Your task to perform on an android device: Go to network settings Image 0: 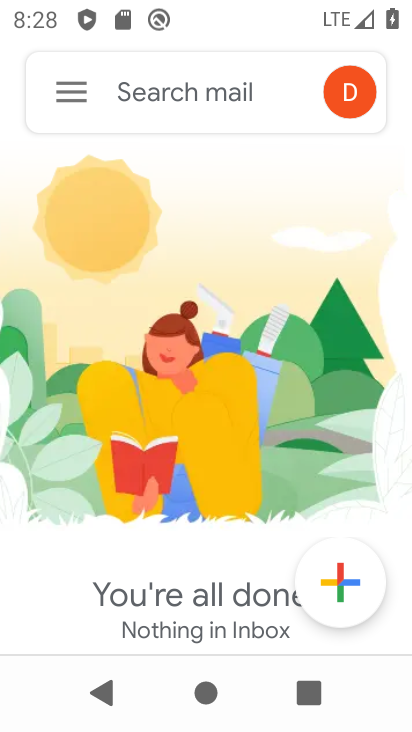
Step 0: drag from (200, 523) to (180, 165)
Your task to perform on an android device: Go to network settings Image 1: 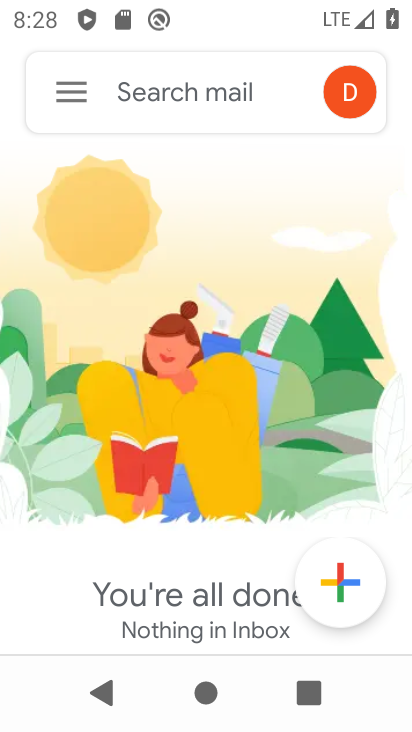
Step 1: drag from (242, 464) to (154, 125)
Your task to perform on an android device: Go to network settings Image 2: 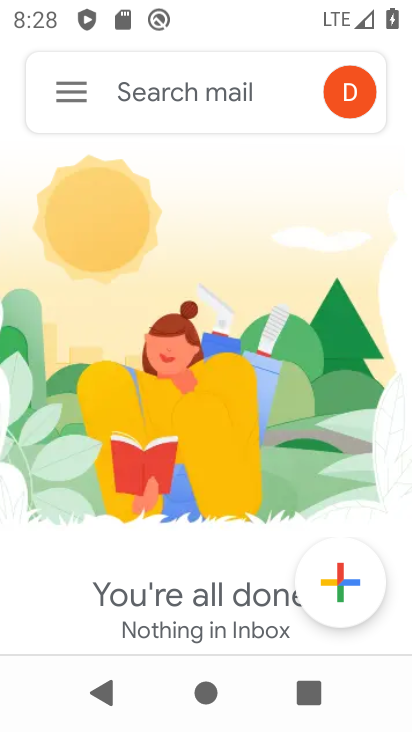
Step 2: drag from (181, 512) to (216, 272)
Your task to perform on an android device: Go to network settings Image 3: 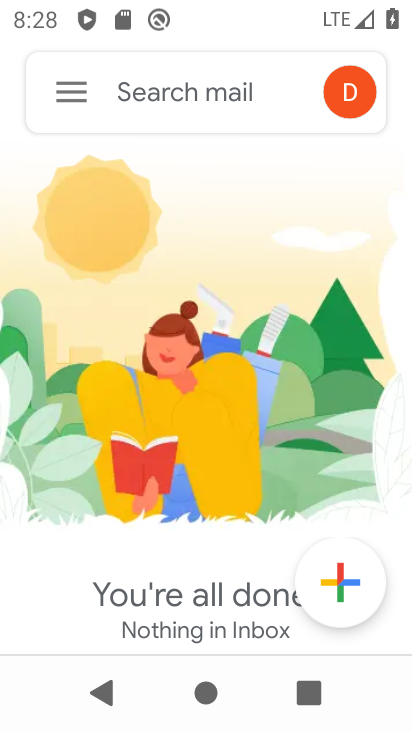
Step 3: click (43, 78)
Your task to perform on an android device: Go to network settings Image 4: 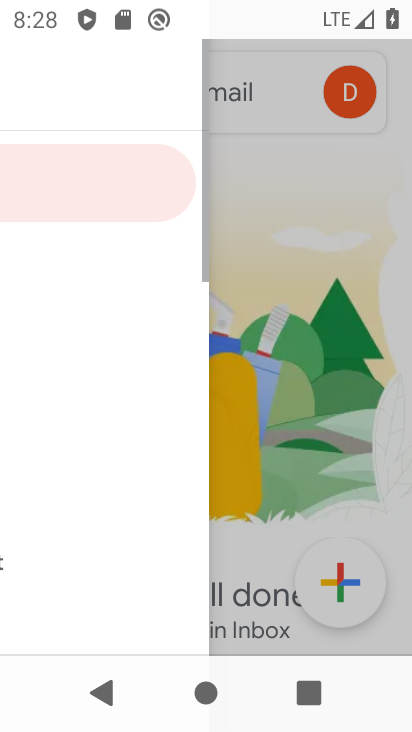
Step 4: click (73, 85)
Your task to perform on an android device: Go to network settings Image 5: 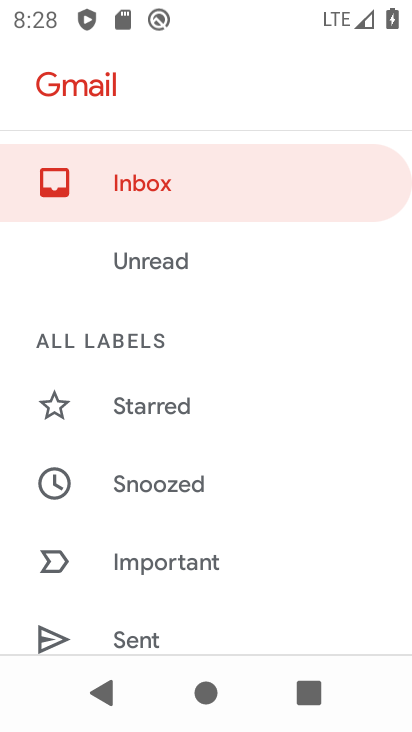
Step 5: click (49, 78)
Your task to perform on an android device: Go to network settings Image 6: 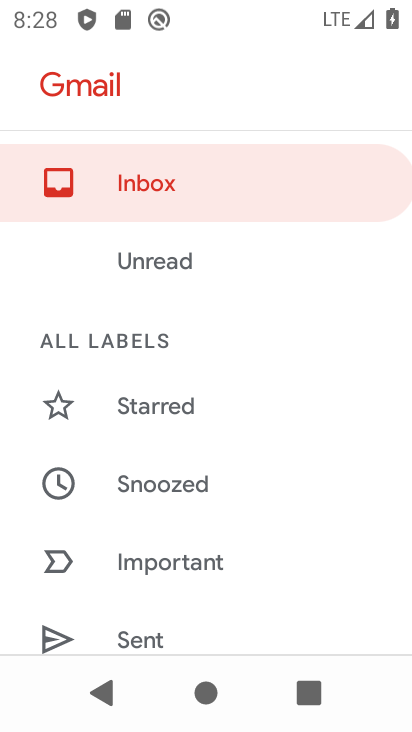
Step 6: click (55, 83)
Your task to perform on an android device: Go to network settings Image 7: 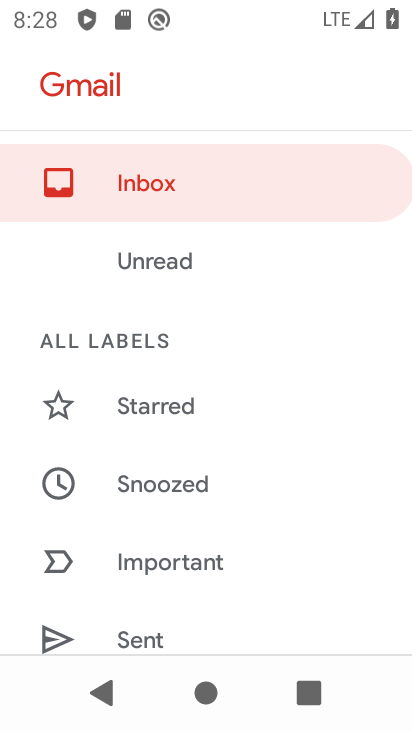
Step 7: drag from (214, 450) to (123, 78)
Your task to perform on an android device: Go to network settings Image 8: 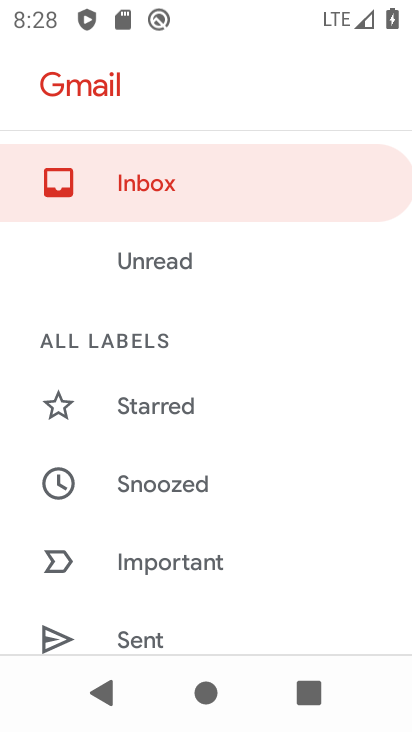
Step 8: drag from (245, 520) to (261, 174)
Your task to perform on an android device: Go to network settings Image 9: 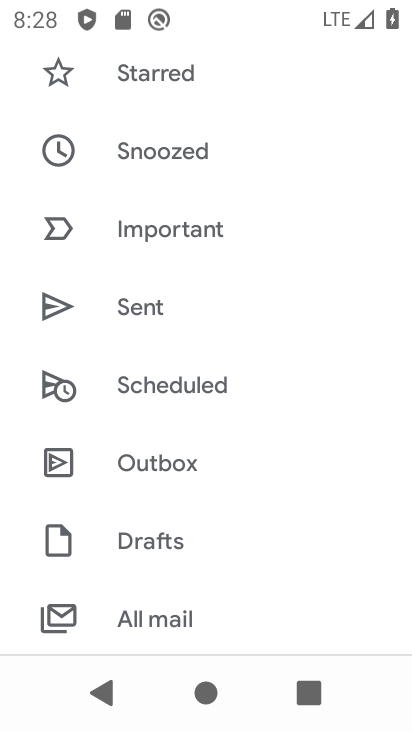
Step 9: drag from (252, 438) to (240, 115)
Your task to perform on an android device: Go to network settings Image 10: 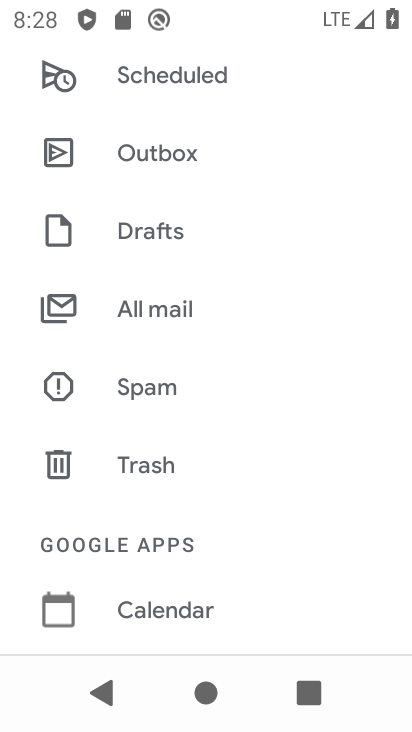
Step 10: drag from (255, 457) to (245, 164)
Your task to perform on an android device: Go to network settings Image 11: 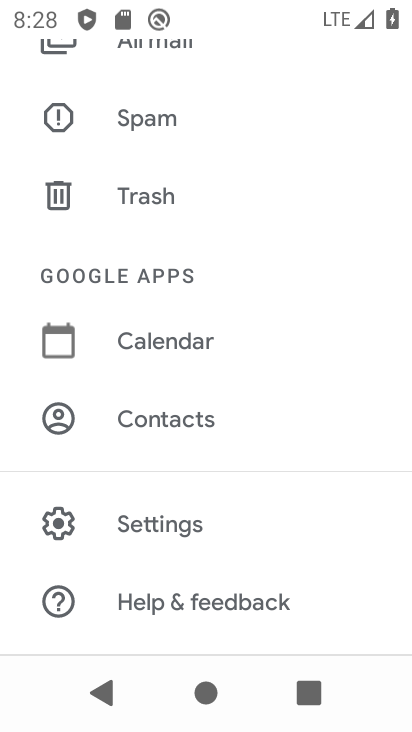
Step 11: drag from (247, 510) to (218, 114)
Your task to perform on an android device: Go to network settings Image 12: 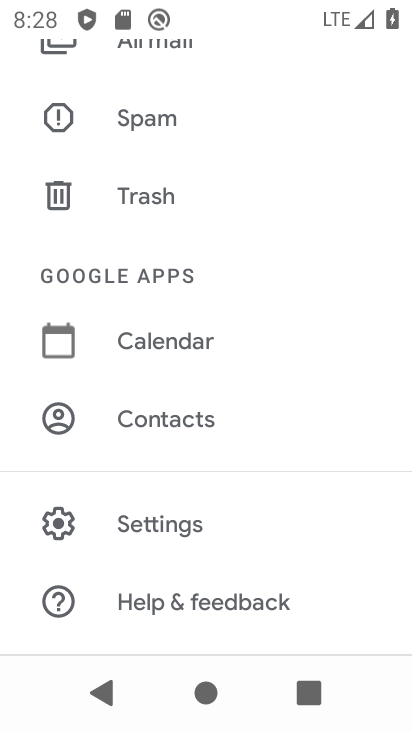
Step 12: drag from (158, 236) to (175, 416)
Your task to perform on an android device: Go to network settings Image 13: 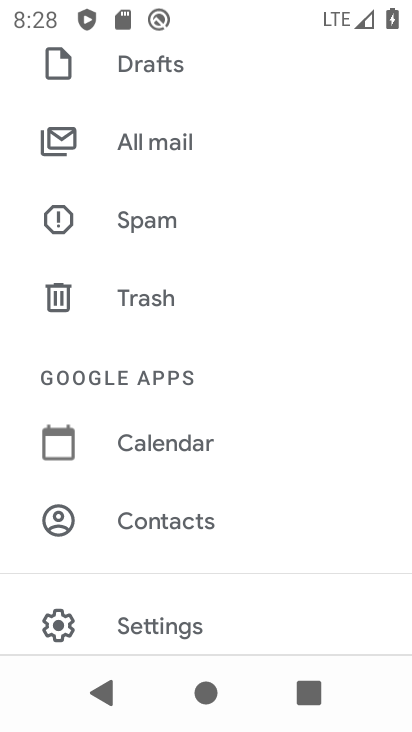
Step 13: drag from (147, 210) to (197, 620)
Your task to perform on an android device: Go to network settings Image 14: 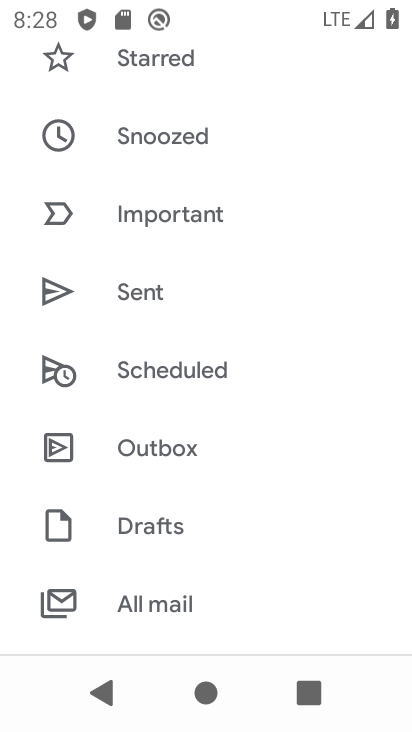
Step 14: drag from (216, 261) to (234, 549)
Your task to perform on an android device: Go to network settings Image 15: 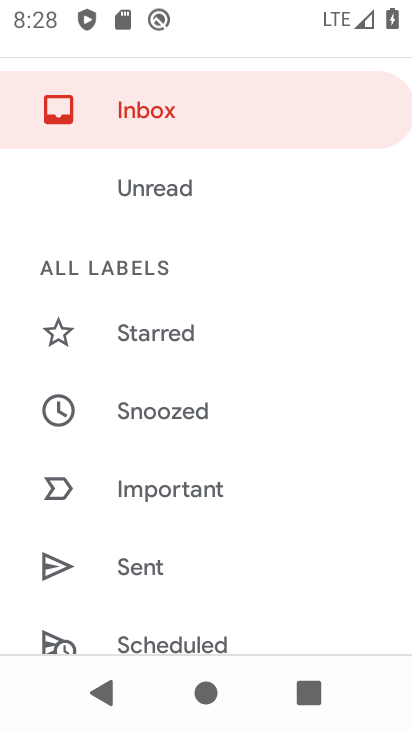
Step 15: drag from (185, 183) to (213, 541)
Your task to perform on an android device: Go to network settings Image 16: 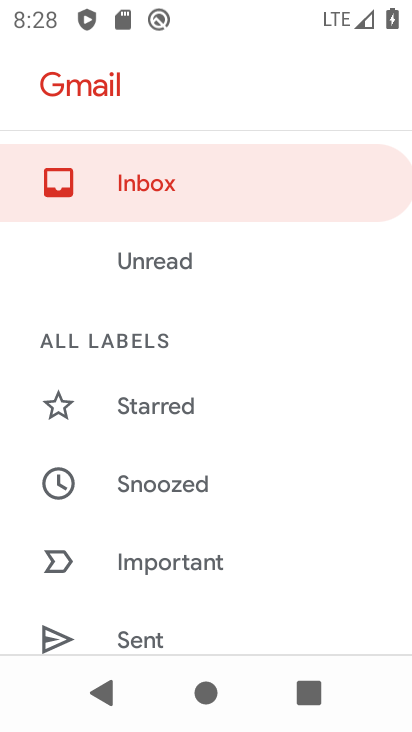
Step 16: press back button
Your task to perform on an android device: Go to network settings Image 17: 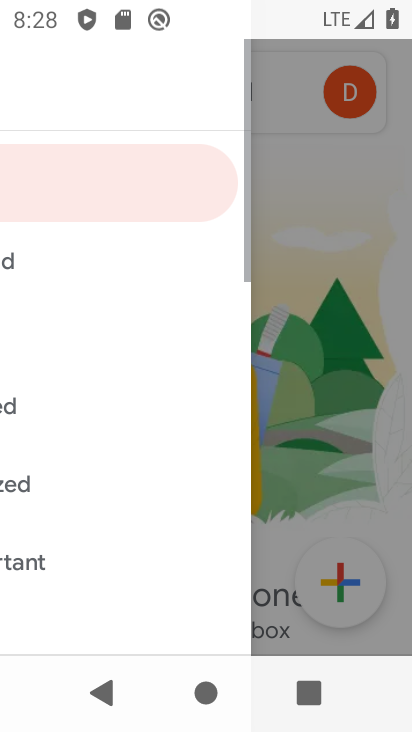
Step 17: press back button
Your task to perform on an android device: Go to network settings Image 18: 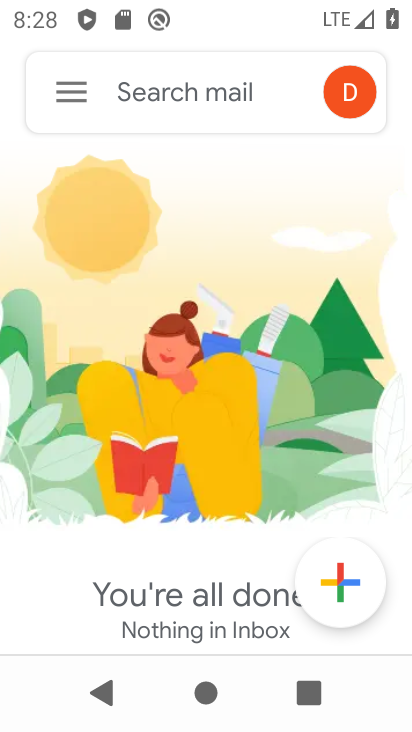
Step 18: press back button
Your task to perform on an android device: Go to network settings Image 19: 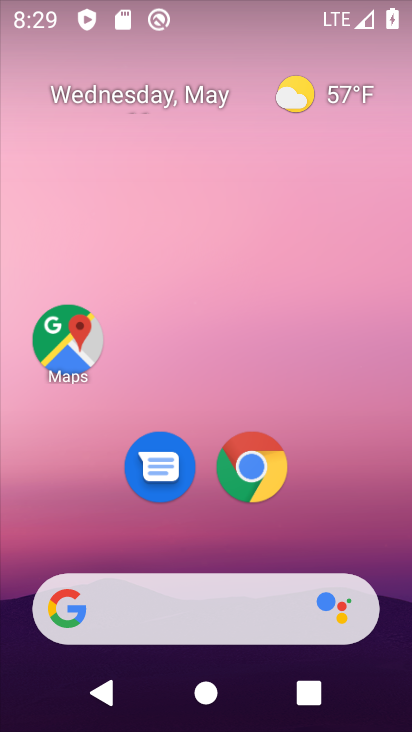
Step 19: drag from (347, 567) to (98, 1)
Your task to perform on an android device: Go to network settings Image 20: 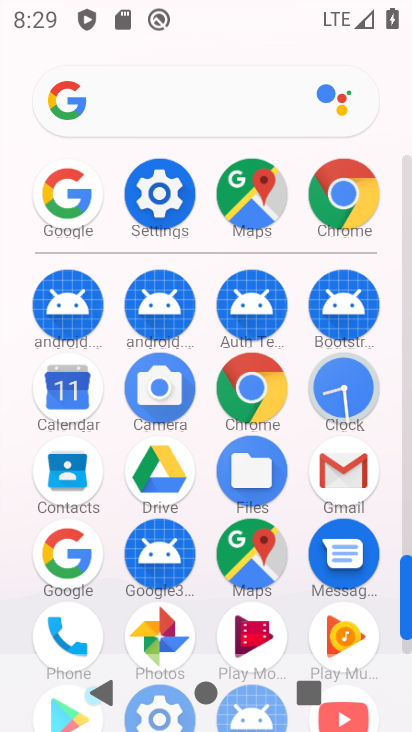
Step 20: click (156, 205)
Your task to perform on an android device: Go to network settings Image 21: 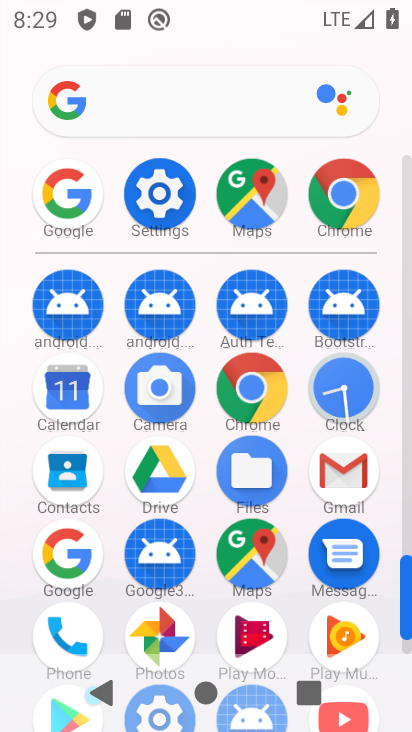
Step 21: click (156, 205)
Your task to perform on an android device: Go to network settings Image 22: 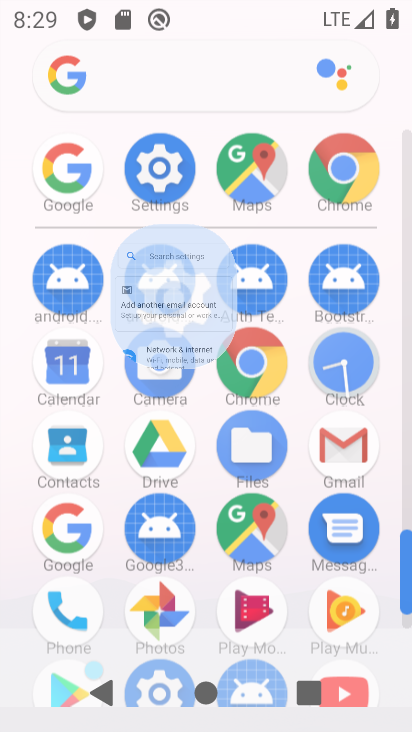
Step 22: click (159, 210)
Your task to perform on an android device: Go to network settings Image 23: 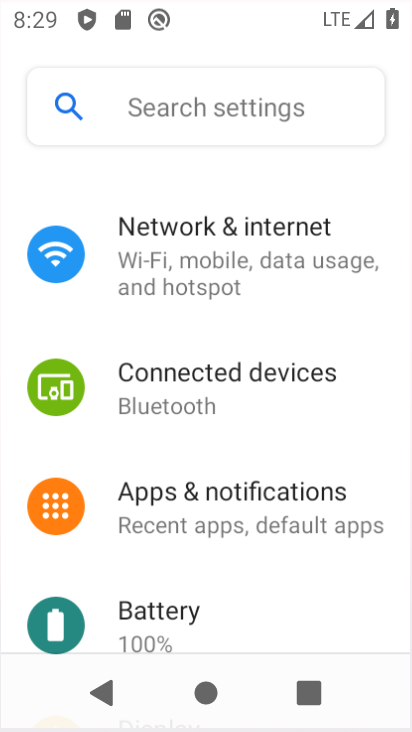
Step 23: click (159, 210)
Your task to perform on an android device: Go to network settings Image 24: 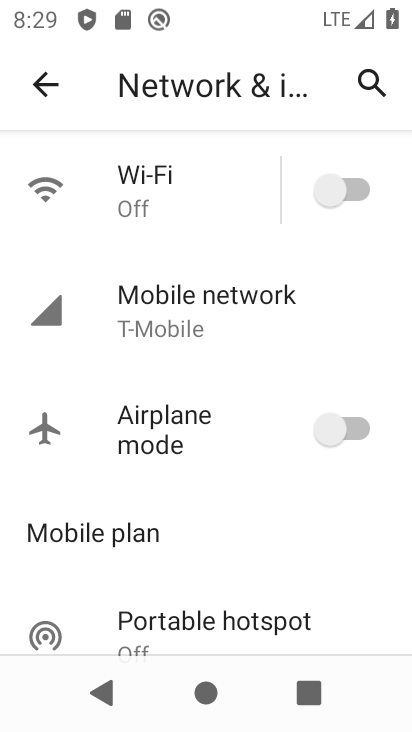
Step 24: drag from (227, 434) to (81, 94)
Your task to perform on an android device: Go to network settings Image 25: 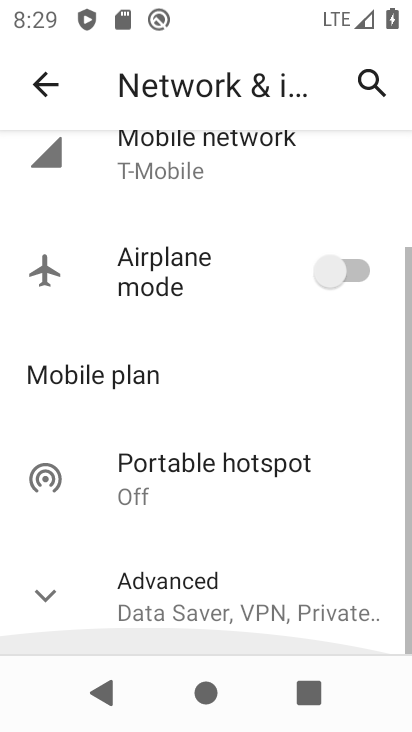
Step 25: drag from (201, 471) to (141, 50)
Your task to perform on an android device: Go to network settings Image 26: 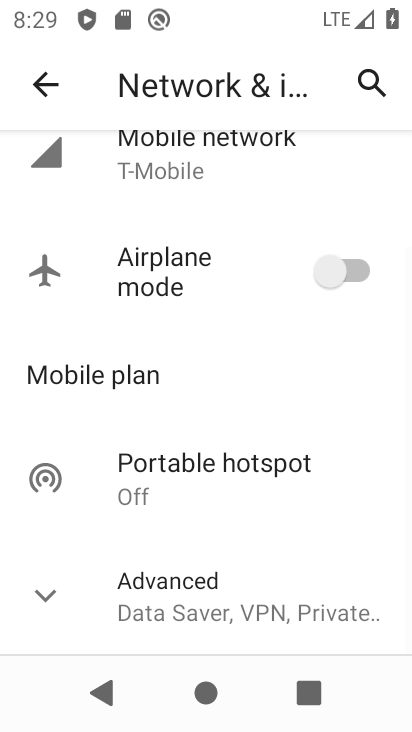
Step 26: drag from (254, 276) to (144, 496)
Your task to perform on an android device: Go to network settings Image 27: 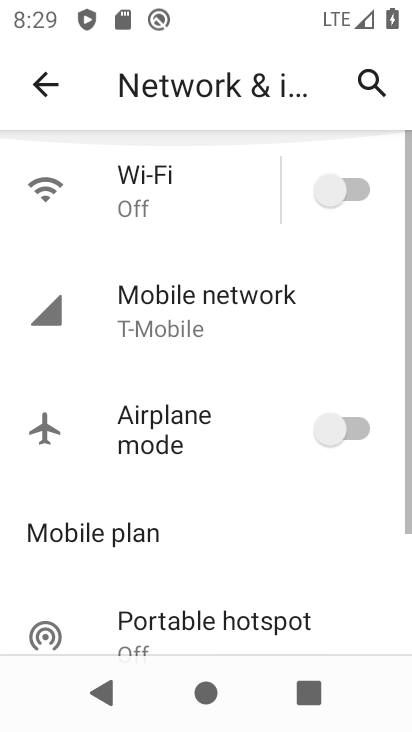
Step 27: drag from (140, 218) to (225, 481)
Your task to perform on an android device: Go to network settings Image 28: 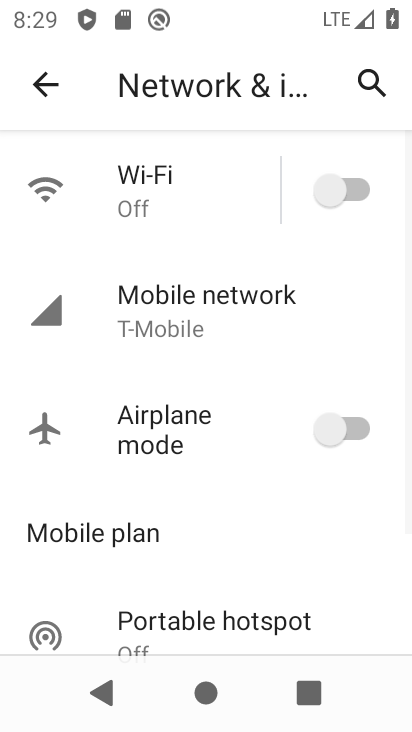
Step 28: click (314, 194)
Your task to perform on an android device: Go to network settings Image 29: 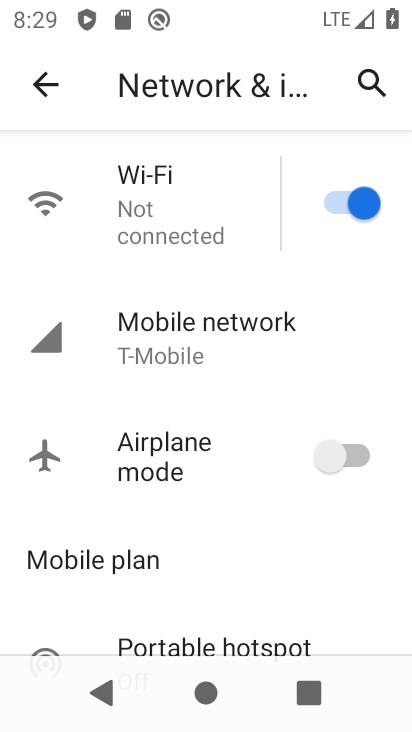
Step 29: task complete